Your task to perform on an android device: Open internet settings Image 0: 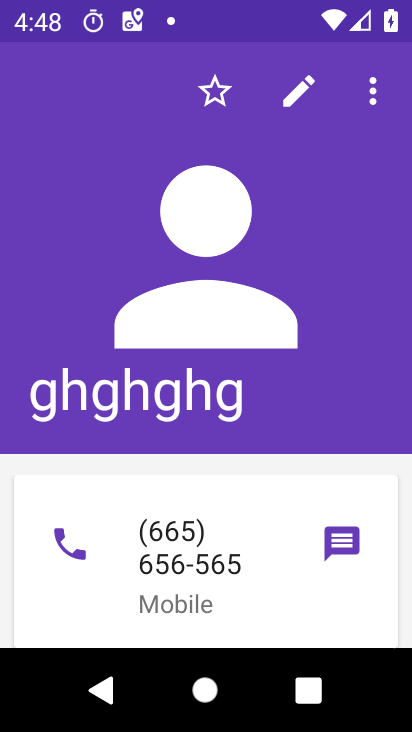
Step 0: press home button
Your task to perform on an android device: Open internet settings Image 1: 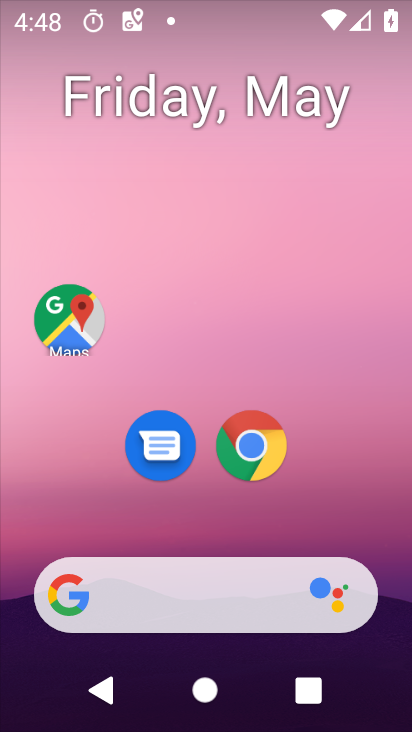
Step 1: drag from (390, 548) to (396, 476)
Your task to perform on an android device: Open internet settings Image 2: 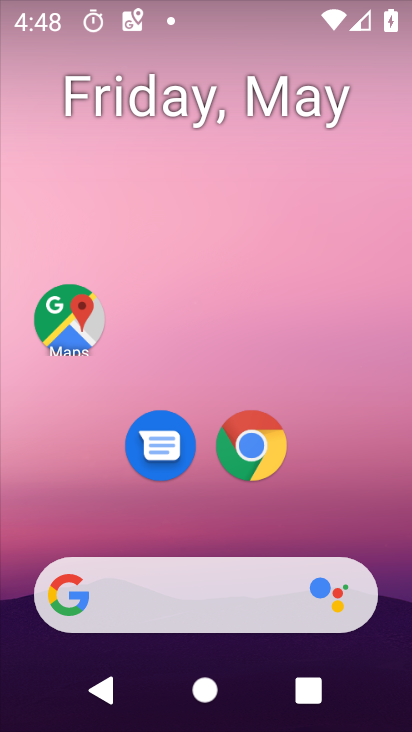
Step 2: click (60, 390)
Your task to perform on an android device: Open internet settings Image 3: 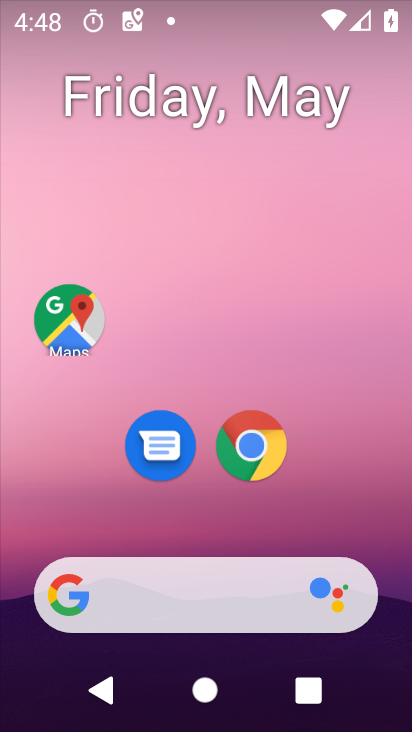
Step 3: drag from (317, 180) to (295, 51)
Your task to perform on an android device: Open internet settings Image 4: 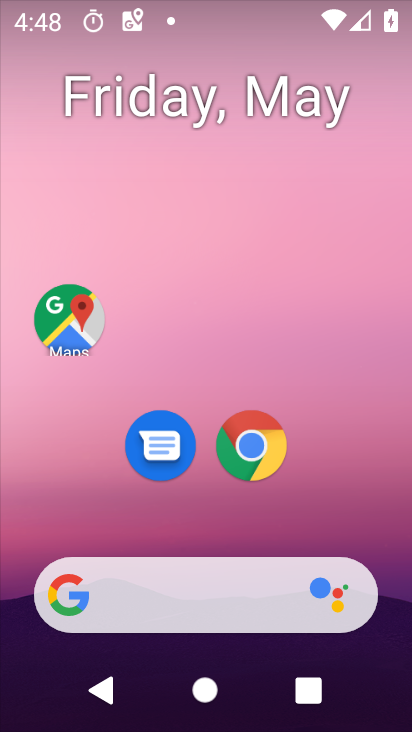
Step 4: drag from (322, 526) to (306, 54)
Your task to perform on an android device: Open internet settings Image 5: 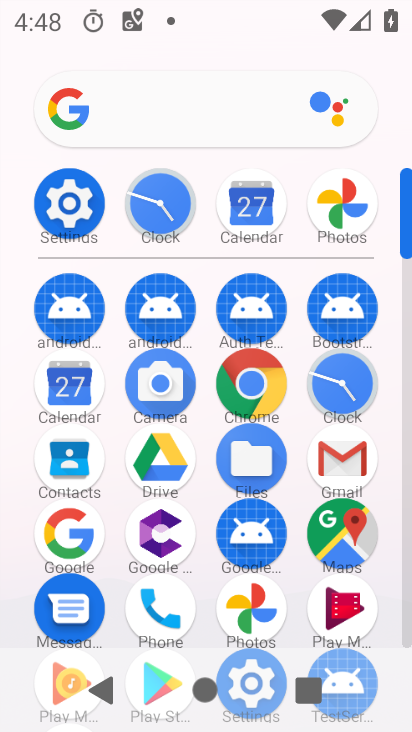
Step 5: click (69, 213)
Your task to perform on an android device: Open internet settings Image 6: 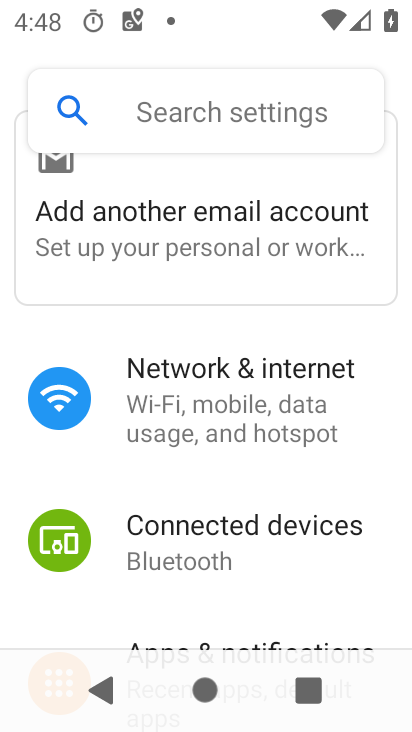
Step 6: click (240, 383)
Your task to perform on an android device: Open internet settings Image 7: 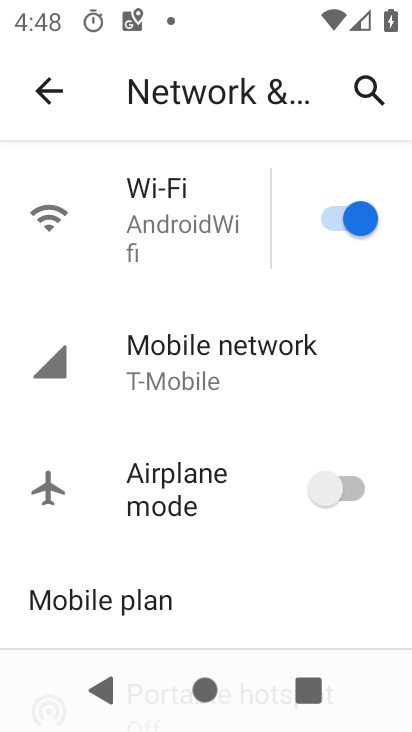
Step 7: task complete